Your task to perform on an android device: Go to notification settings Image 0: 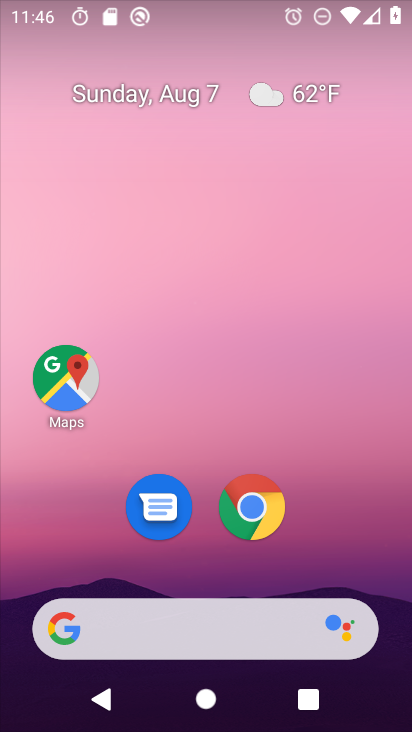
Step 0: drag from (351, 419) to (355, 89)
Your task to perform on an android device: Go to notification settings Image 1: 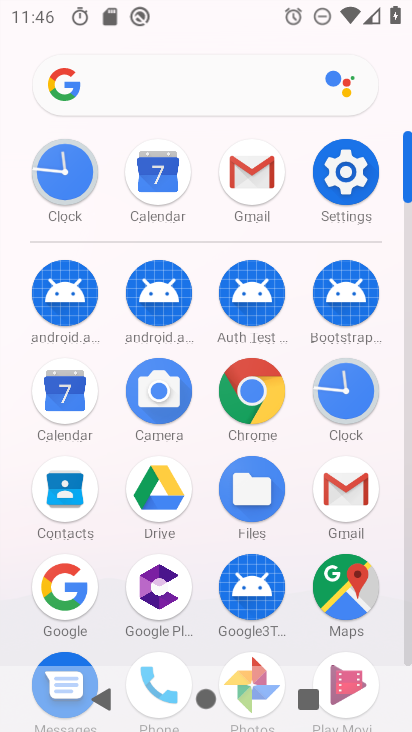
Step 1: click (344, 170)
Your task to perform on an android device: Go to notification settings Image 2: 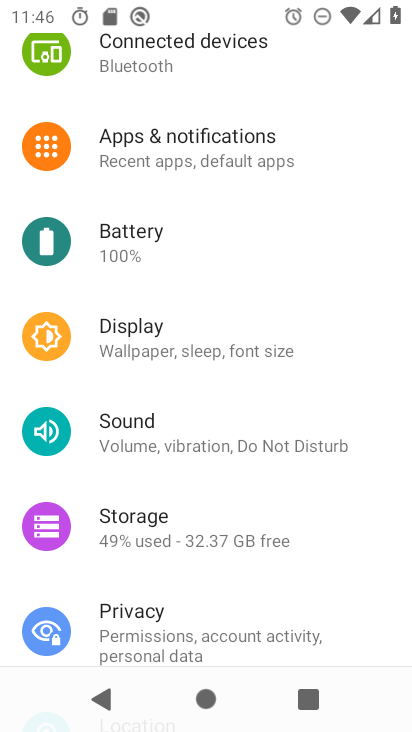
Step 2: click (213, 158)
Your task to perform on an android device: Go to notification settings Image 3: 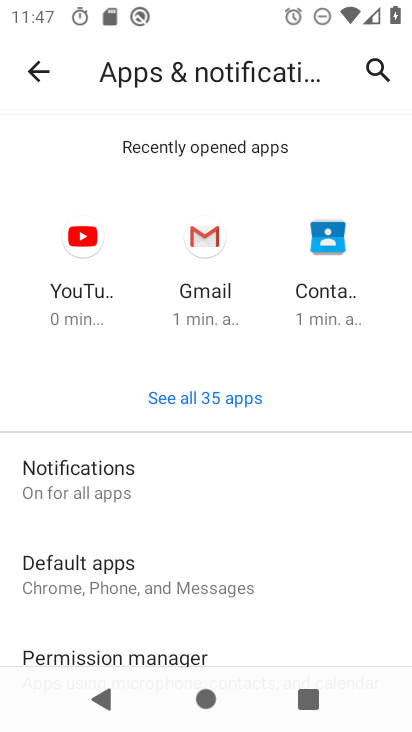
Step 3: click (90, 473)
Your task to perform on an android device: Go to notification settings Image 4: 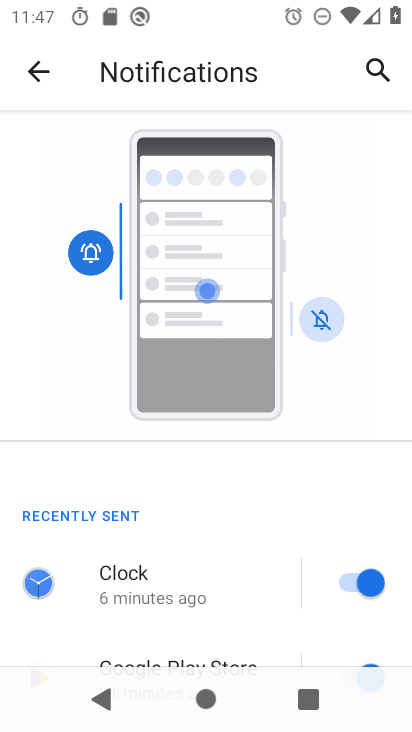
Step 4: task complete